Your task to perform on an android device: Open sound settings Image 0: 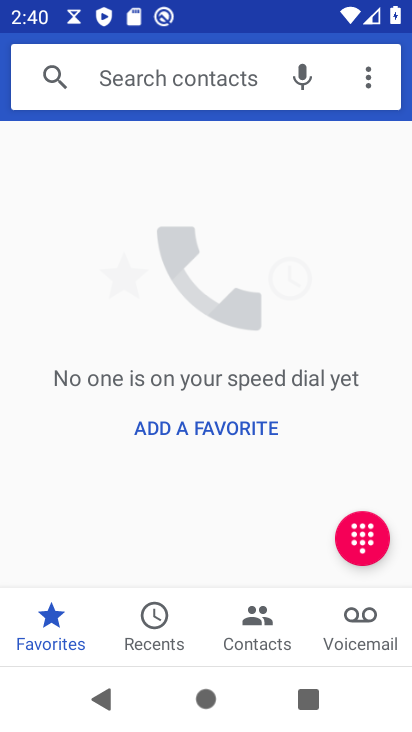
Step 0: press home button
Your task to perform on an android device: Open sound settings Image 1: 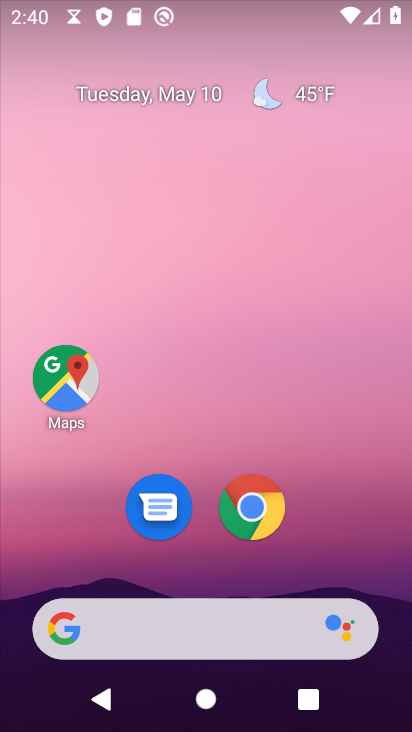
Step 1: drag from (288, 513) to (155, 122)
Your task to perform on an android device: Open sound settings Image 2: 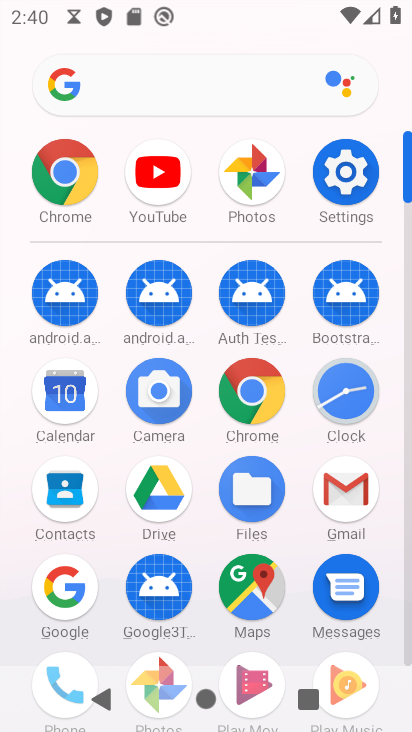
Step 2: click (344, 181)
Your task to perform on an android device: Open sound settings Image 3: 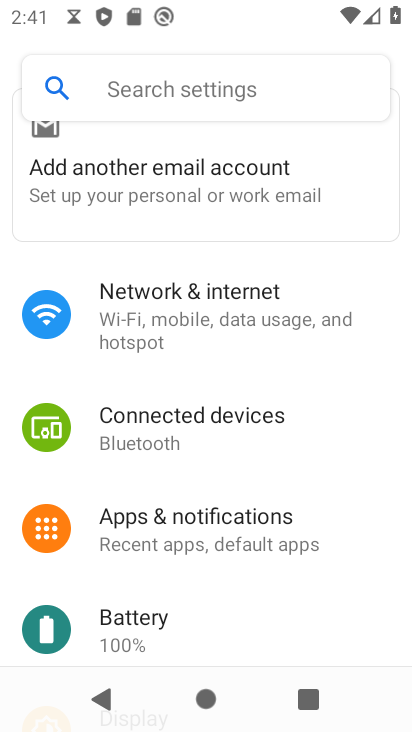
Step 3: drag from (239, 613) to (227, 246)
Your task to perform on an android device: Open sound settings Image 4: 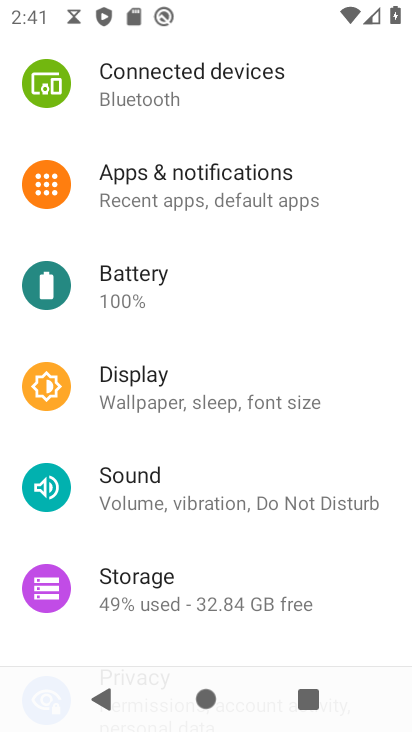
Step 4: click (158, 504)
Your task to perform on an android device: Open sound settings Image 5: 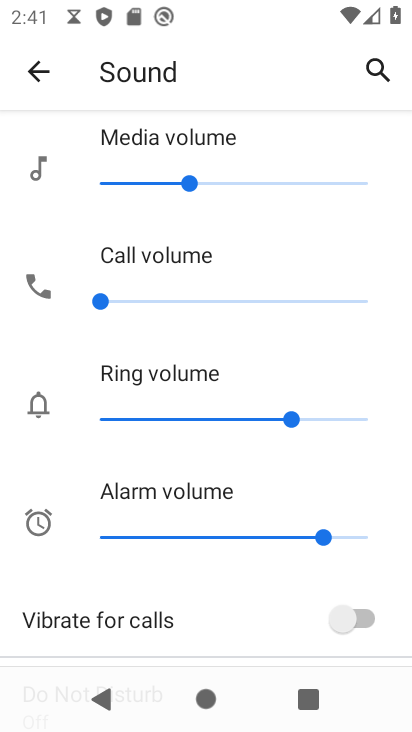
Step 5: task complete